Your task to perform on an android device: change the upload size in google photos Image 0: 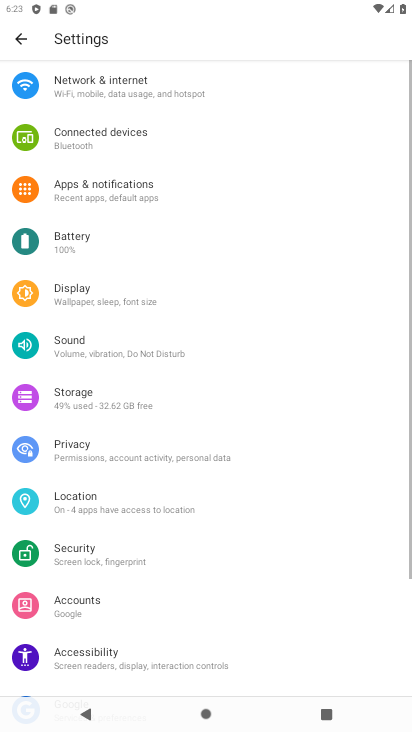
Step 0: press home button
Your task to perform on an android device: change the upload size in google photos Image 1: 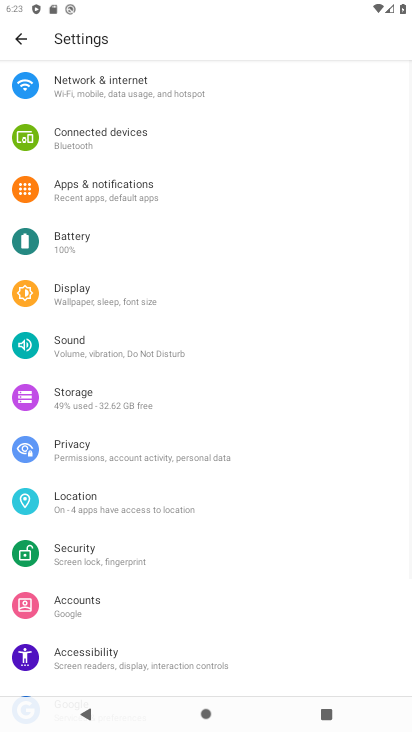
Step 1: press home button
Your task to perform on an android device: change the upload size in google photos Image 2: 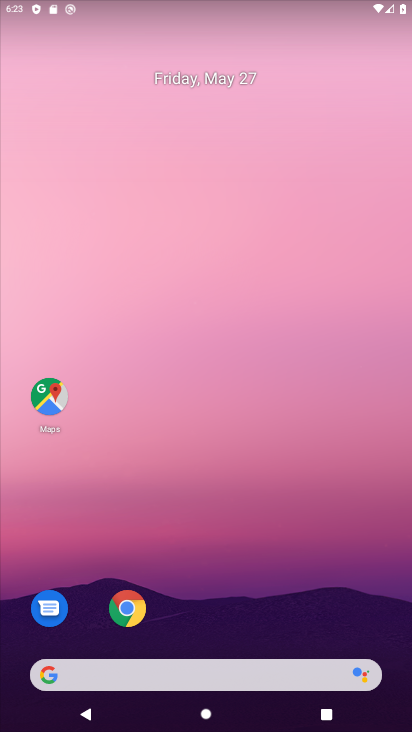
Step 2: drag from (207, 642) to (211, 203)
Your task to perform on an android device: change the upload size in google photos Image 3: 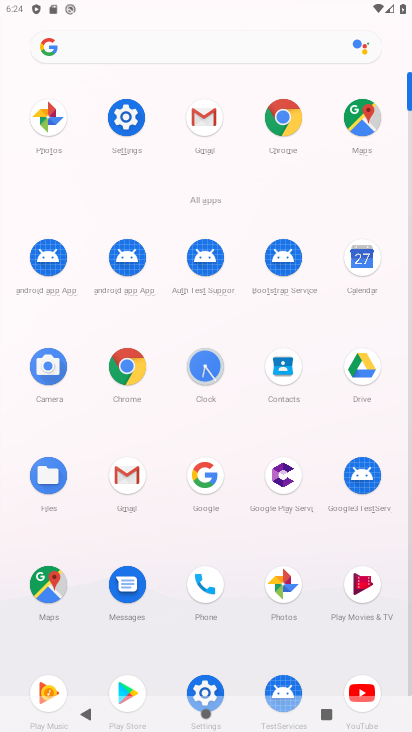
Step 3: click (281, 577)
Your task to perform on an android device: change the upload size in google photos Image 4: 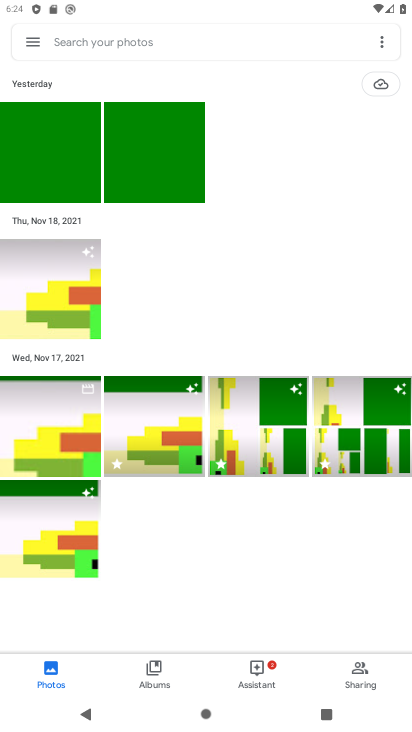
Step 4: click (35, 47)
Your task to perform on an android device: change the upload size in google photos Image 5: 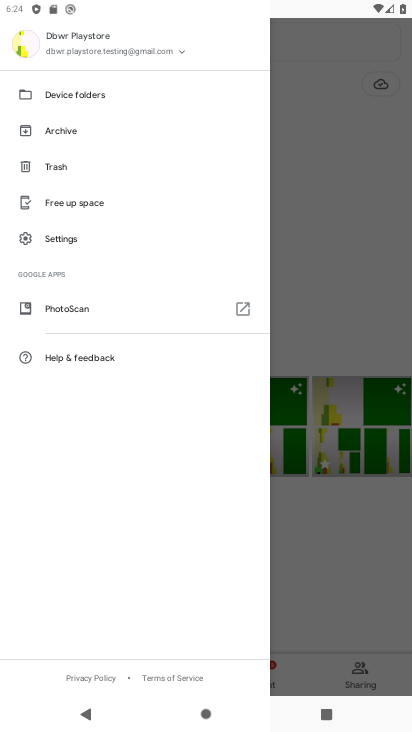
Step 5: click (88, 238)
Your task to perform on an android device: change the upload size in google photos Image 6: 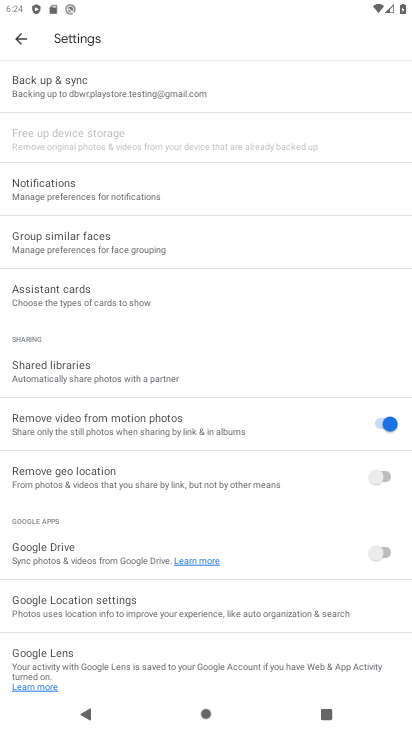
Step 6: click (94, 87)
Your task to perform on an android device: change the upload size in google photos Image 7: 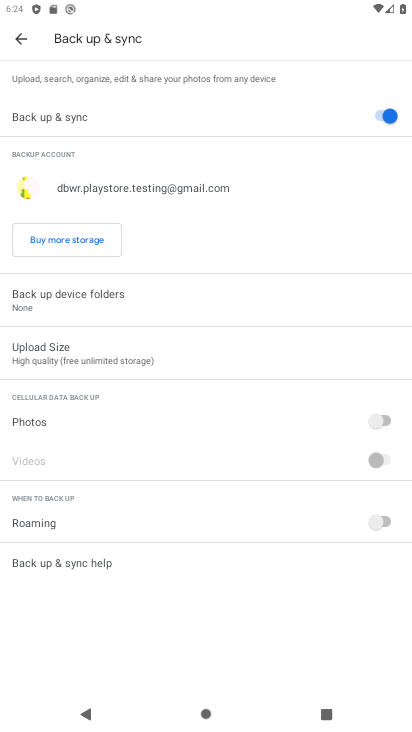
Step 7: click (75, 345)
Your task to perform on an android device: change the upload size in google photos Image 8: 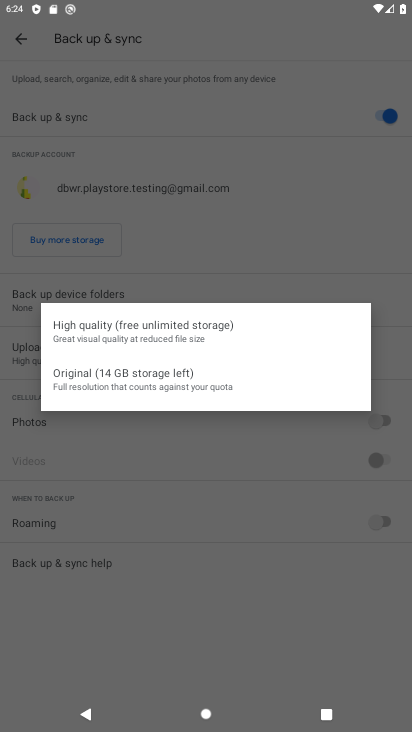
Step 8: click (113, 390)
Your task to perform on an android device: change the upload size in google photos Image 9: 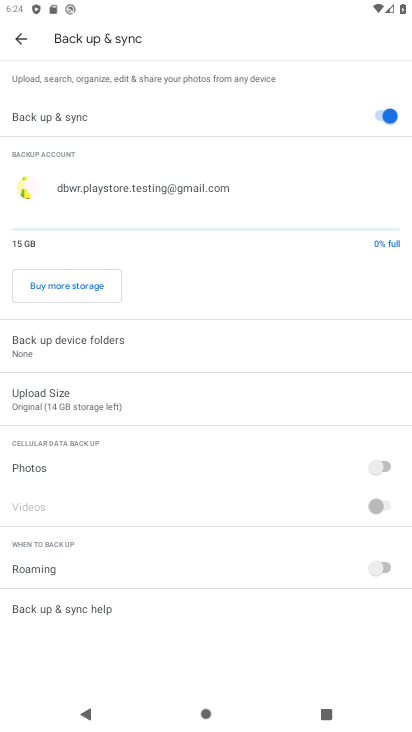
Step 9: task complete